Your task to perform on an android device: Open Wikipedia Image 0: 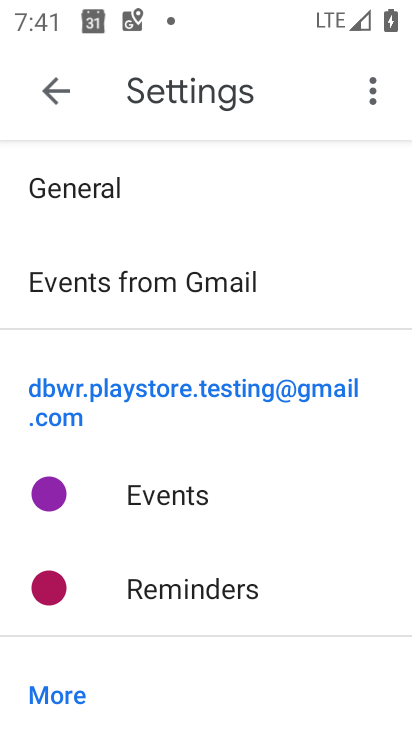
Step 0: press home button
Your task to perform on an android device: Open Wikipedia Image 1: 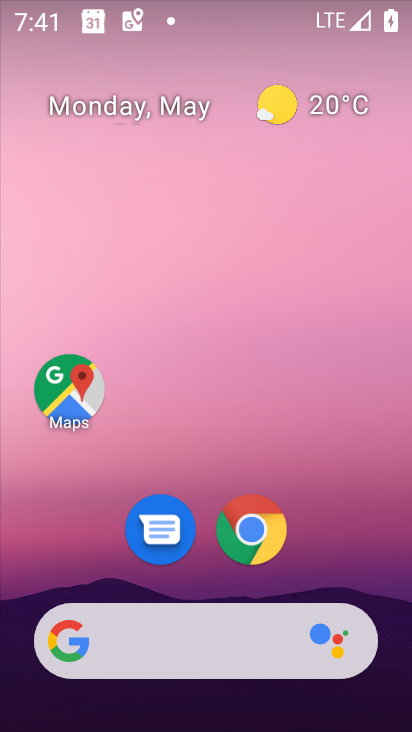
Step 1: click (241, 526)
Your task to perform on an android device: Open Wikipedia Image 2: 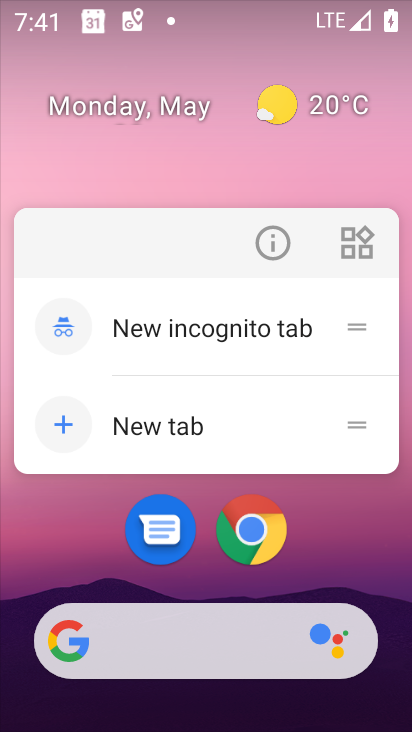
Step 2: click (251, 506)
Your task to perform on an android device: Open Wikipedia Image 3: 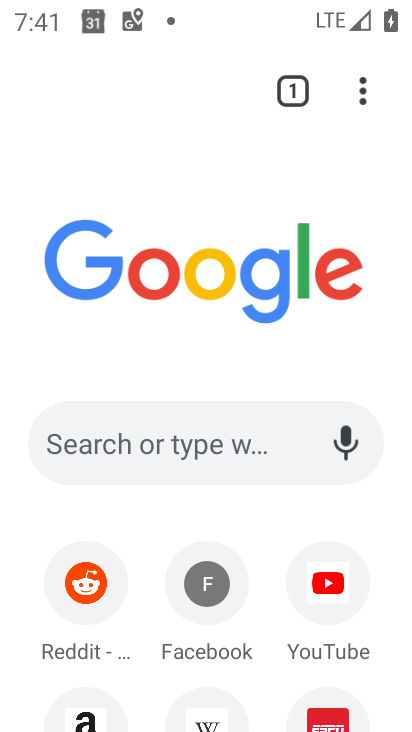
Step 3: click (202, 715)
Your task to perform on an android device: Open Wikipedia Image 4: 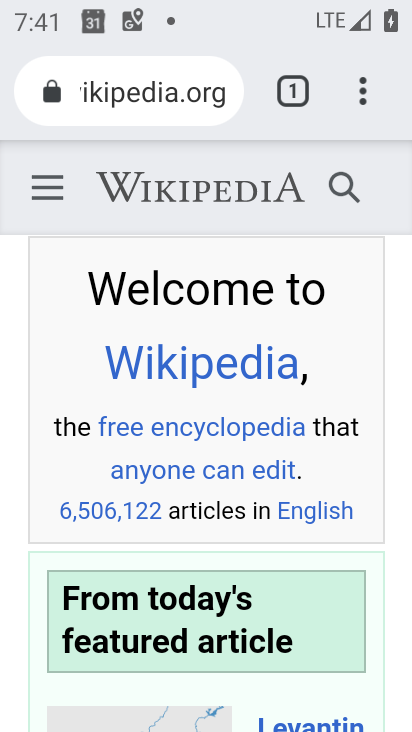
Step 4: task complete